Your task to perform on an android device: Open eBay Image 0: 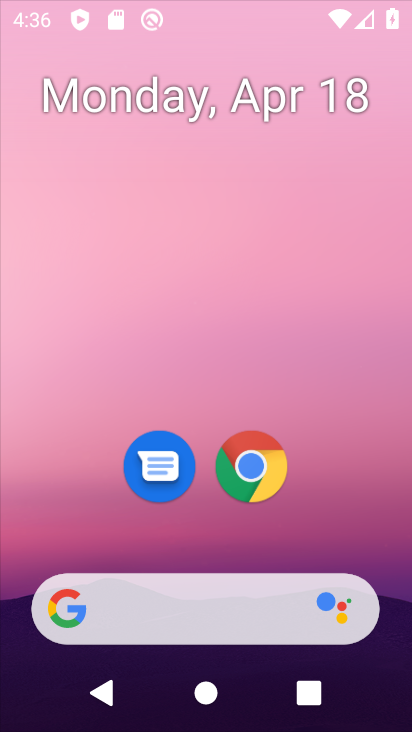
Step 0: drag from (319, 369) to (276, 30)
Your task to perform on an android device: Open eBay Image 1: 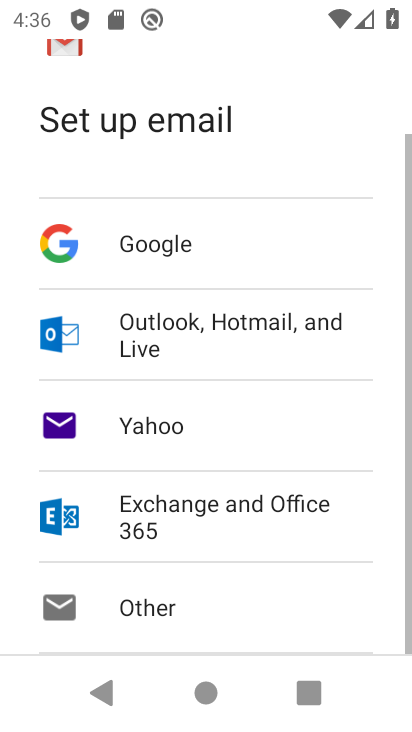
Step 1: press back button
Your task to perform on an android device: Open eBay Image 2: 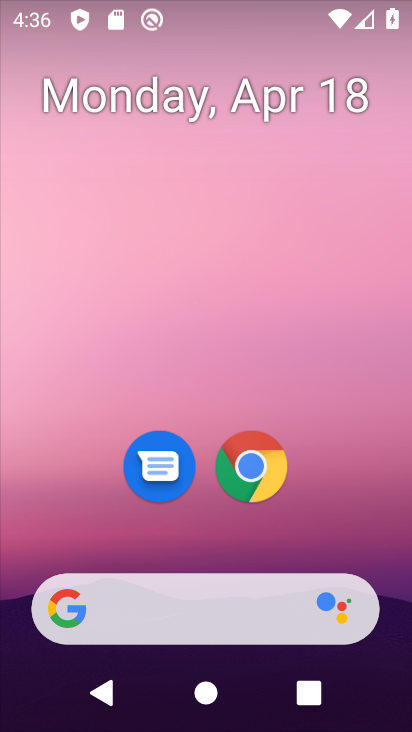
Step 2: drag from (316, 482) to (258, 31)
Your task to perform on an android device: Open eBay Image 3: 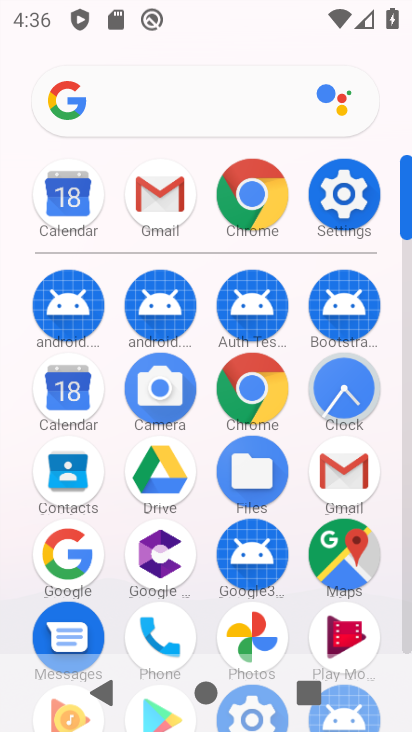
Step 3: click (256, 190)
Your task to perform on an android device: Open eBay Image 4: 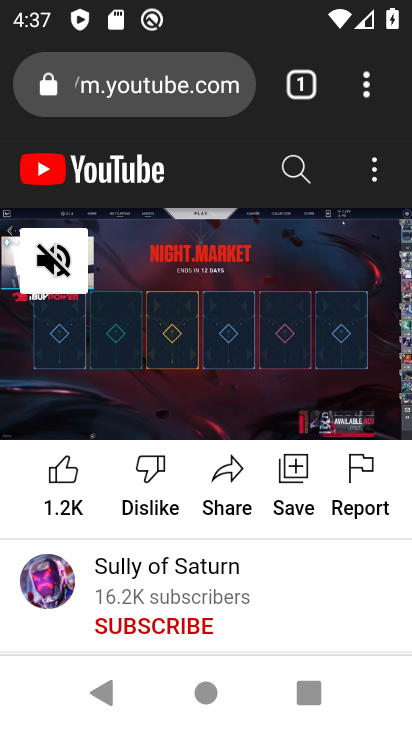
Step 4: click (181, 93)
Your task to perform on an android device: Open eBay Image 5: 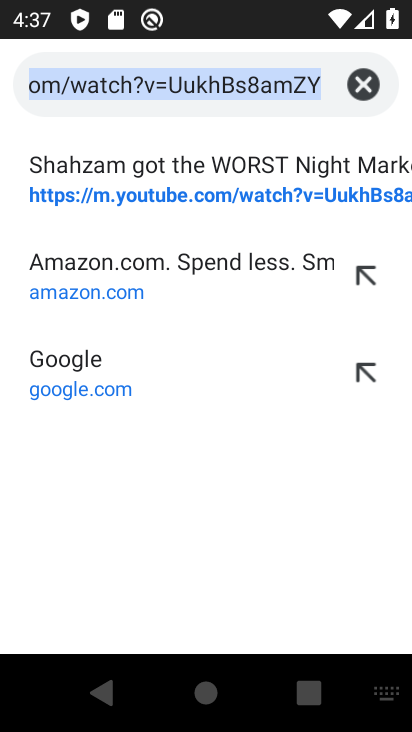
Step 5: click (374, 75)
Your task to perform on an android device: Open eBay Image 6: 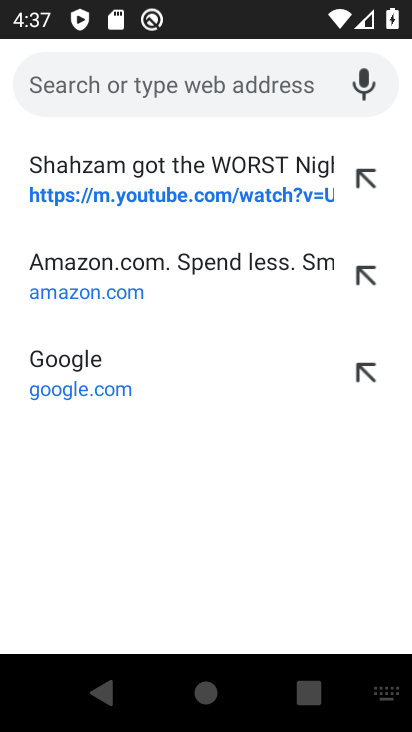
Step 6: type "eBay"
Your task to perform on an android device: Open eBay Image 7: 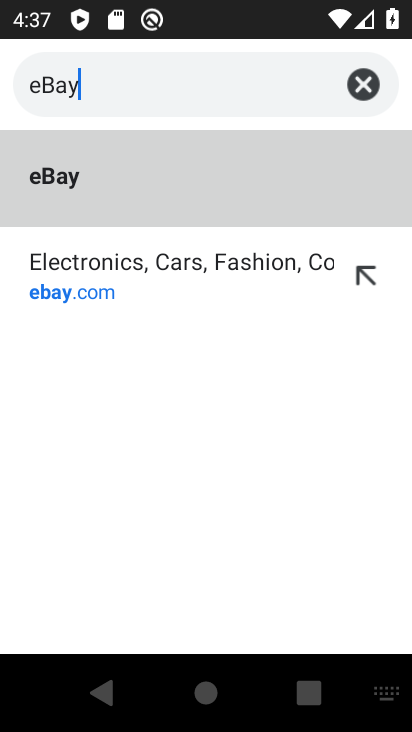
Step 7: click (123, 177)
Your task to perform on an android device: Open eBay Image 8: 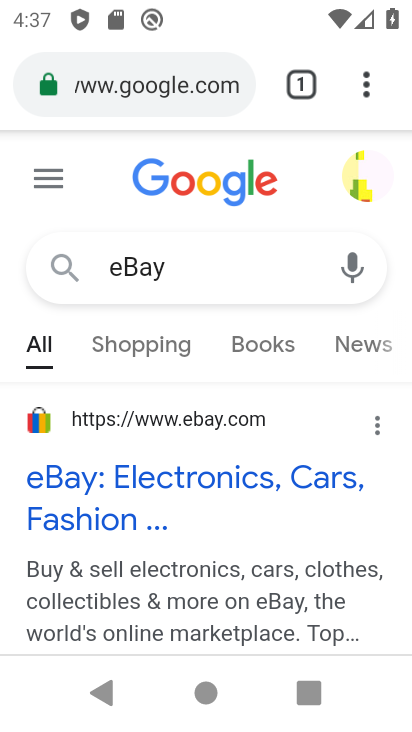
Step 8: click (155, 470)
Your task to perform on an android device: Open eBay Image 9: 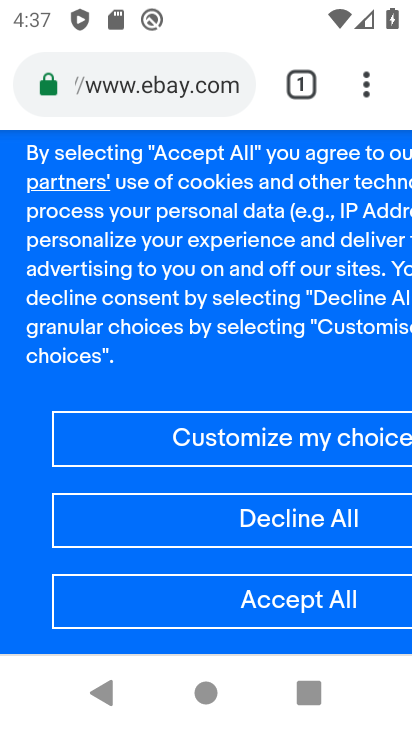
Step 9: task complete